Your task to perform on an android device: search for starred emails in the gmail app Image 0: 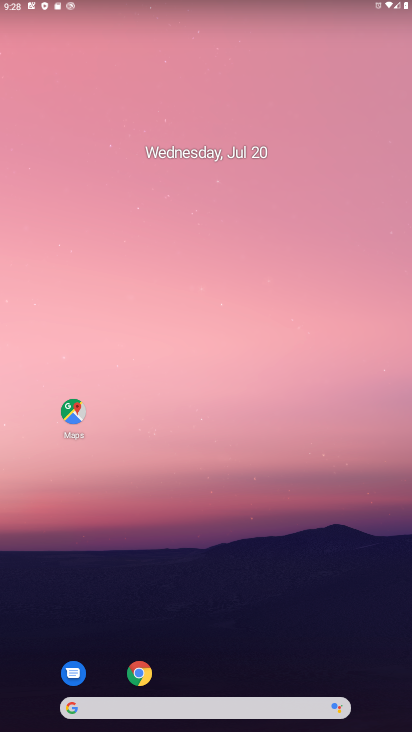
Step 0: drag from (224, 714) to (224, 268)
Your task to perform on an android device: search for starred emails in the gmail app Image 1: 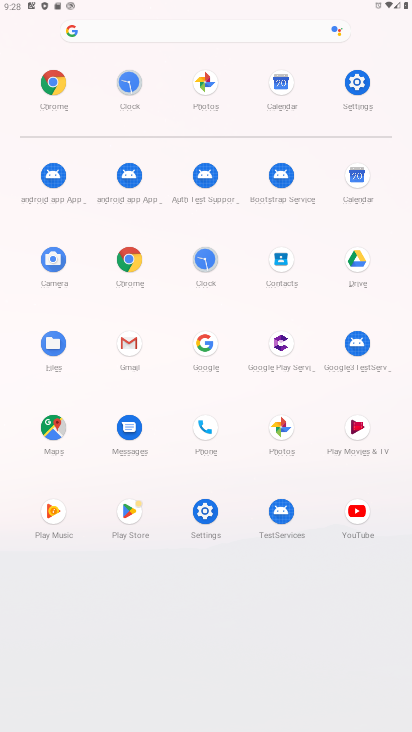
Step 1: click (123, 341)
Your task to perform on an android device: search for starred emails in the gmail app Image 2: 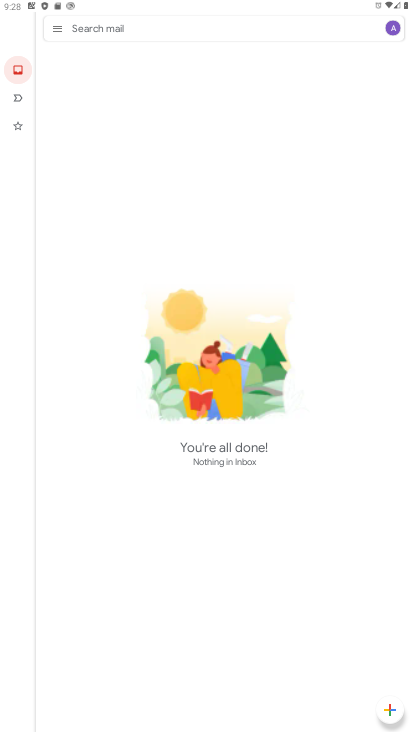
Step 2: click (56, 22)
Your task to perform on an android device: search for starred emails in the gmail app Image 3: 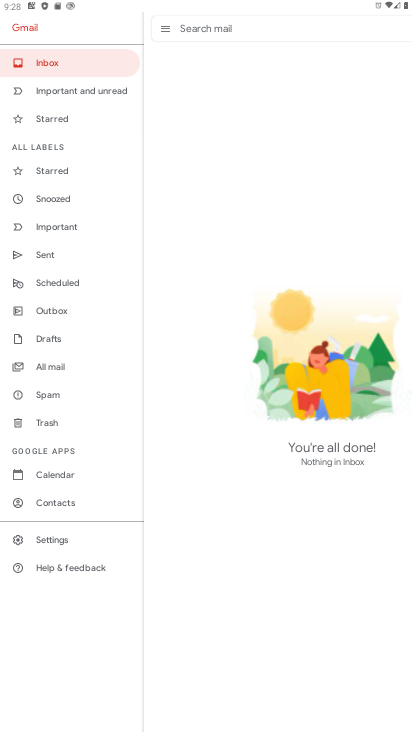
Step 3: click (55, 169)
Your task to perform on an android device: search for starred emails in the gmail app Image 4: 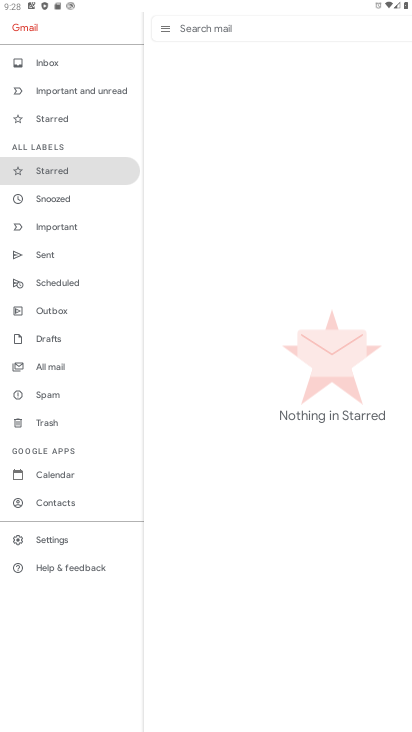
Step 4: task complete